Your task to perform on an android device: Open the calendar and show me this week's events Image 0: 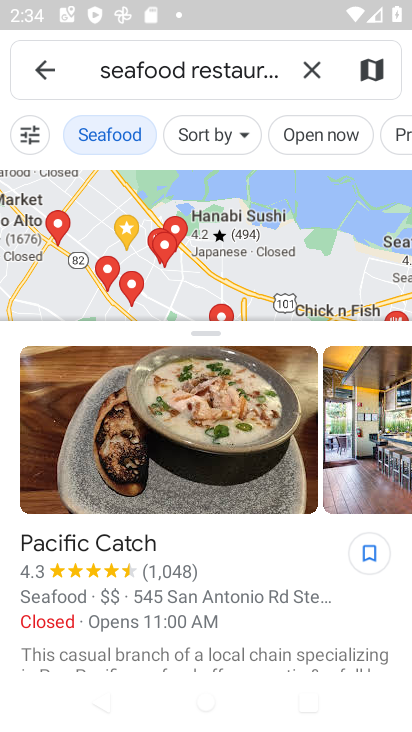
Step 0: press home button
Your task to perform on an android device: Open the calendar and show me this week's events Image 1: 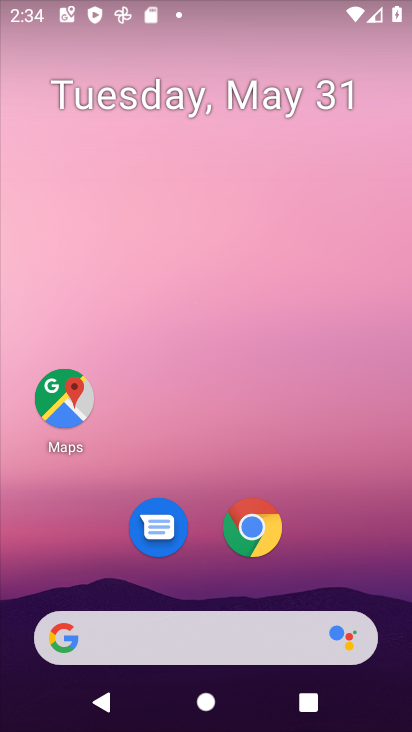
Step 1: drag from (320, 252) to (300, 87)
Your task to perform on an android device: Open the calendar and show me this week's events Image 2: 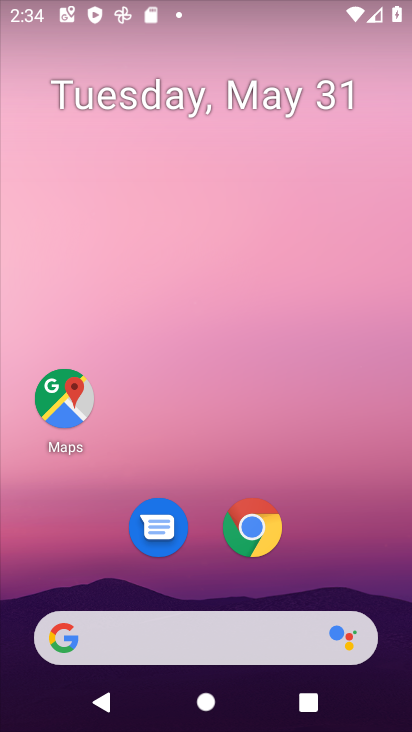
Step 2: drag from (366, 581) to (347, 341)
Your task to perform on an android device: Open the calendar and show me this week's events Image 3: 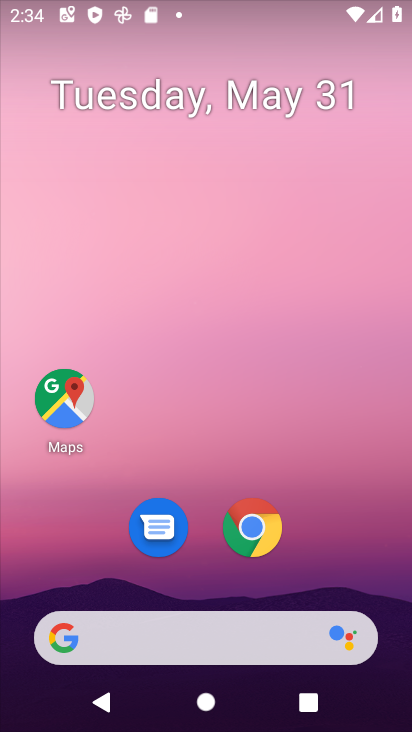
Step 3: drag from (328, 552) to (306, 162)
Your task to perform on an android device: Open the calendar and show me this week's events Image 4: 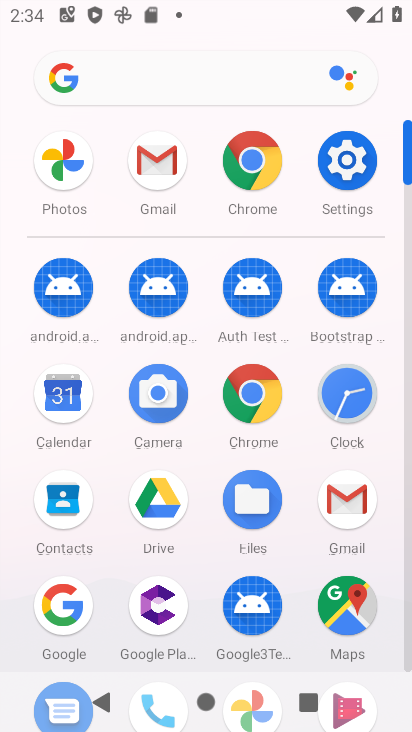
Step 4: click (63, 416)
Your task to perform on an android device: Open the calendar and show me this week's events Image 5: 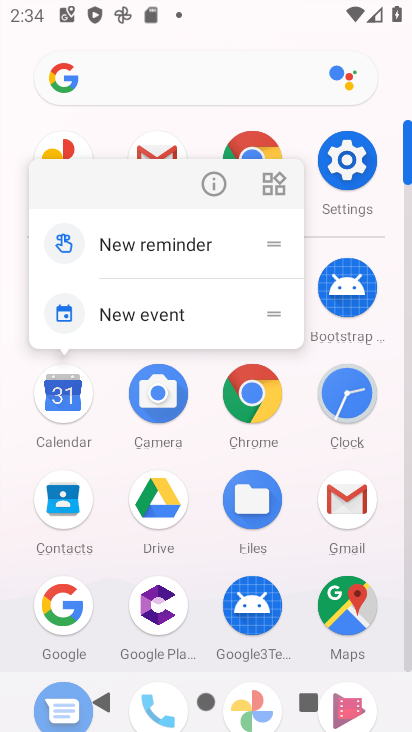
Step 5: click (62, 398)
Your task to perform on an android device: Open the calendar and show me this week's events Image 6: 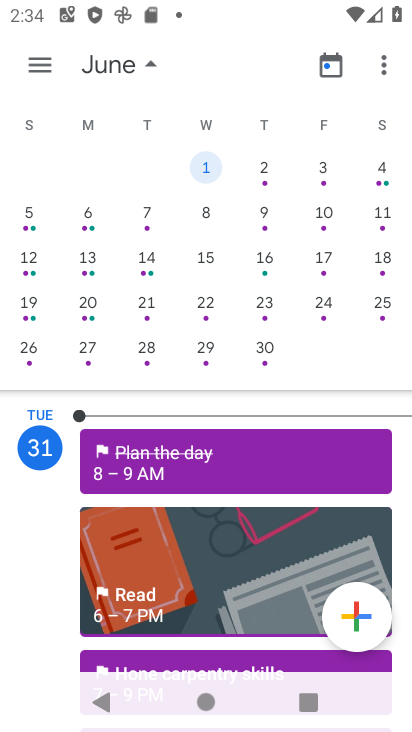
Step 6: click (379, 176)
Your task to perform on an android device: Open the calendar and show me this week's events Image 7: 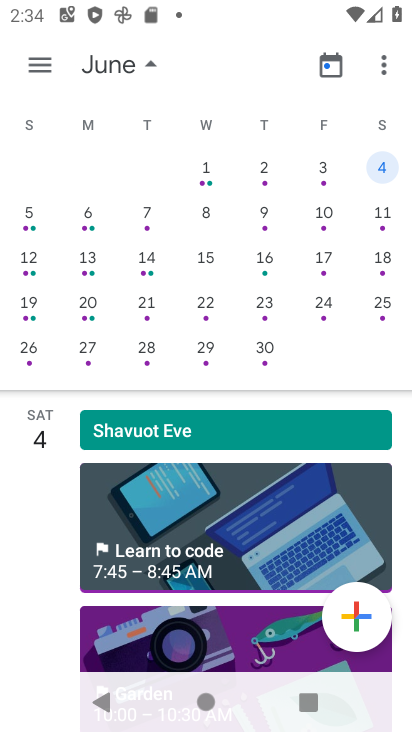
Step 7: task complete